Your task to perform on an android device: open a new tab in the chrome app Image 0: 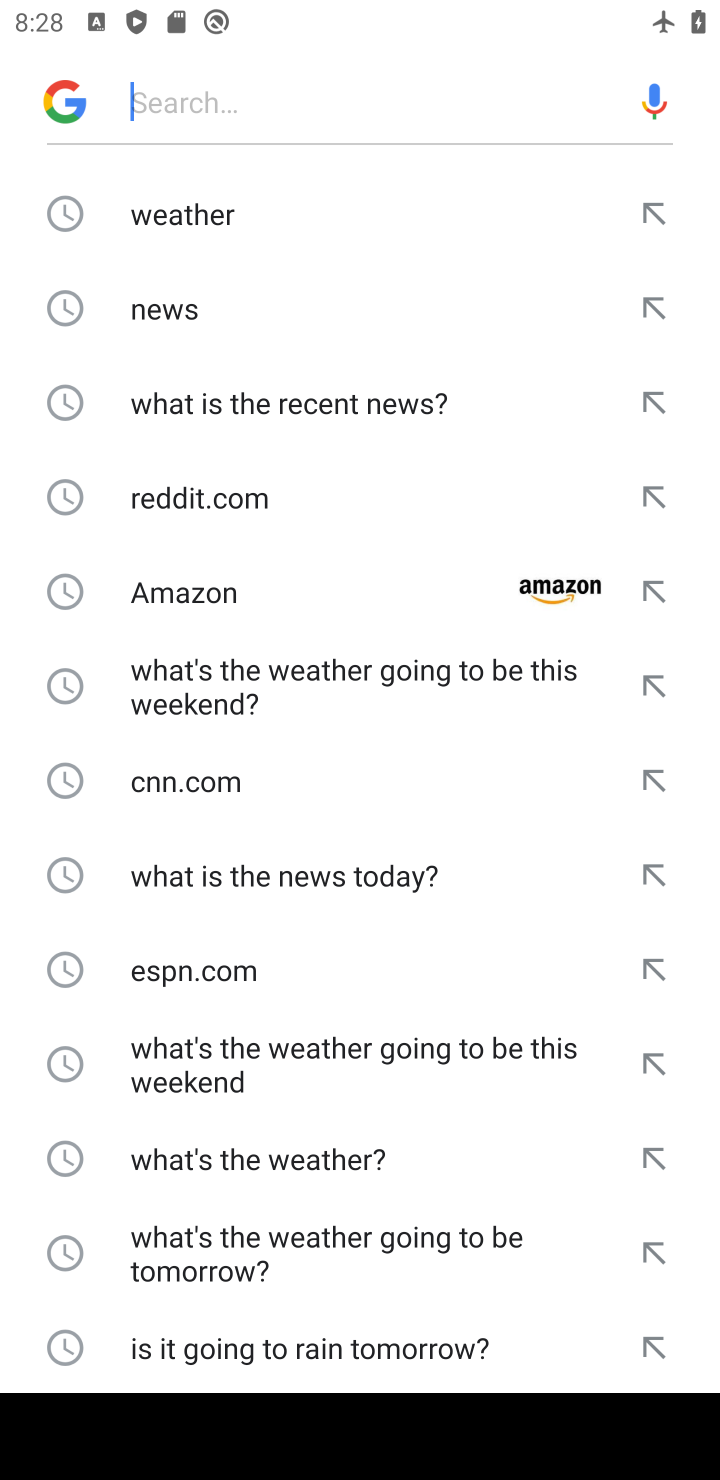
Step 0: press home button
Your task to perform on an android device: open a new tab in the chrome app Image 1: 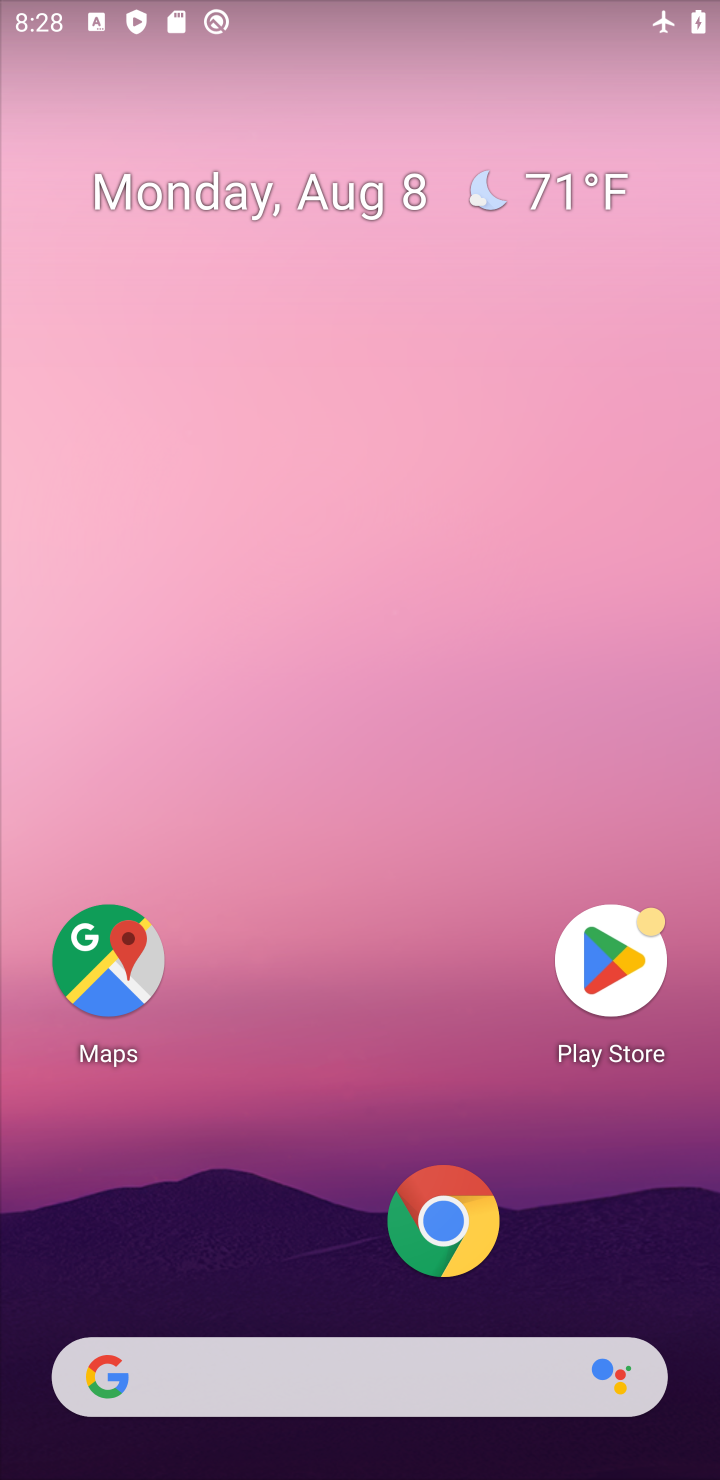
Step 1: click (461, 1237)
Your task to perform on an android device: open a new tab in the chrome app Image 2: 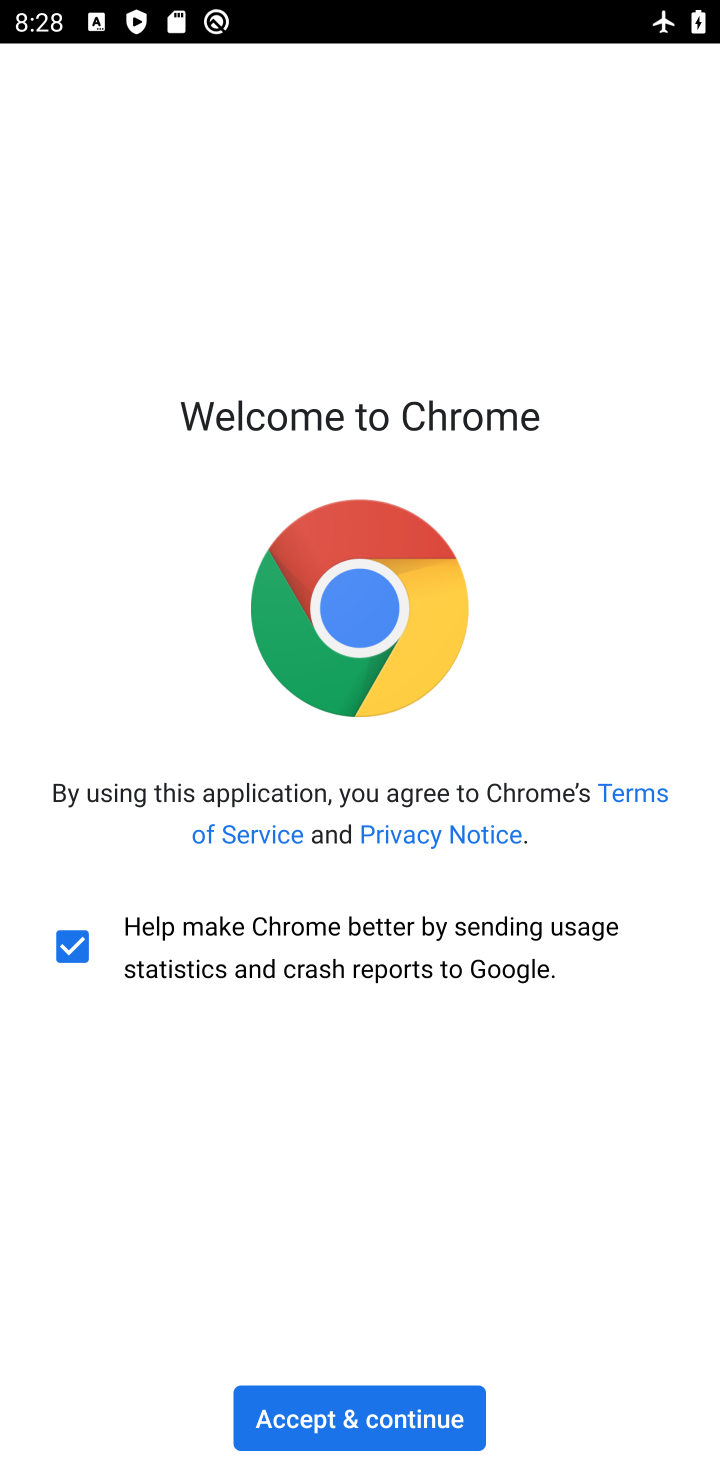
Step 2: click (391, 1403)
Your task to perform on an android device: open a new tab in the chrome app Image 3: 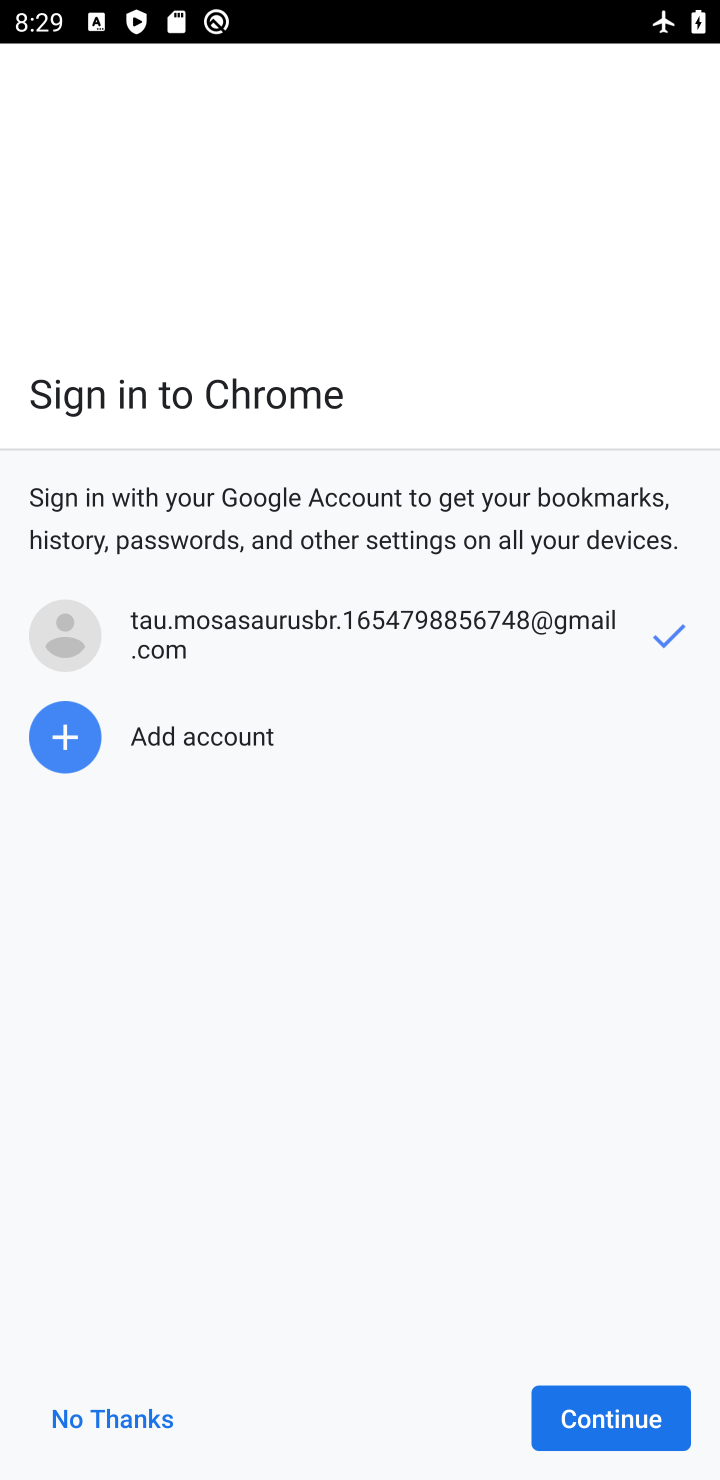
Step 3: click (602, 1427)
Your task to perform on an android device: open a new tab in the chrome app Image 4: 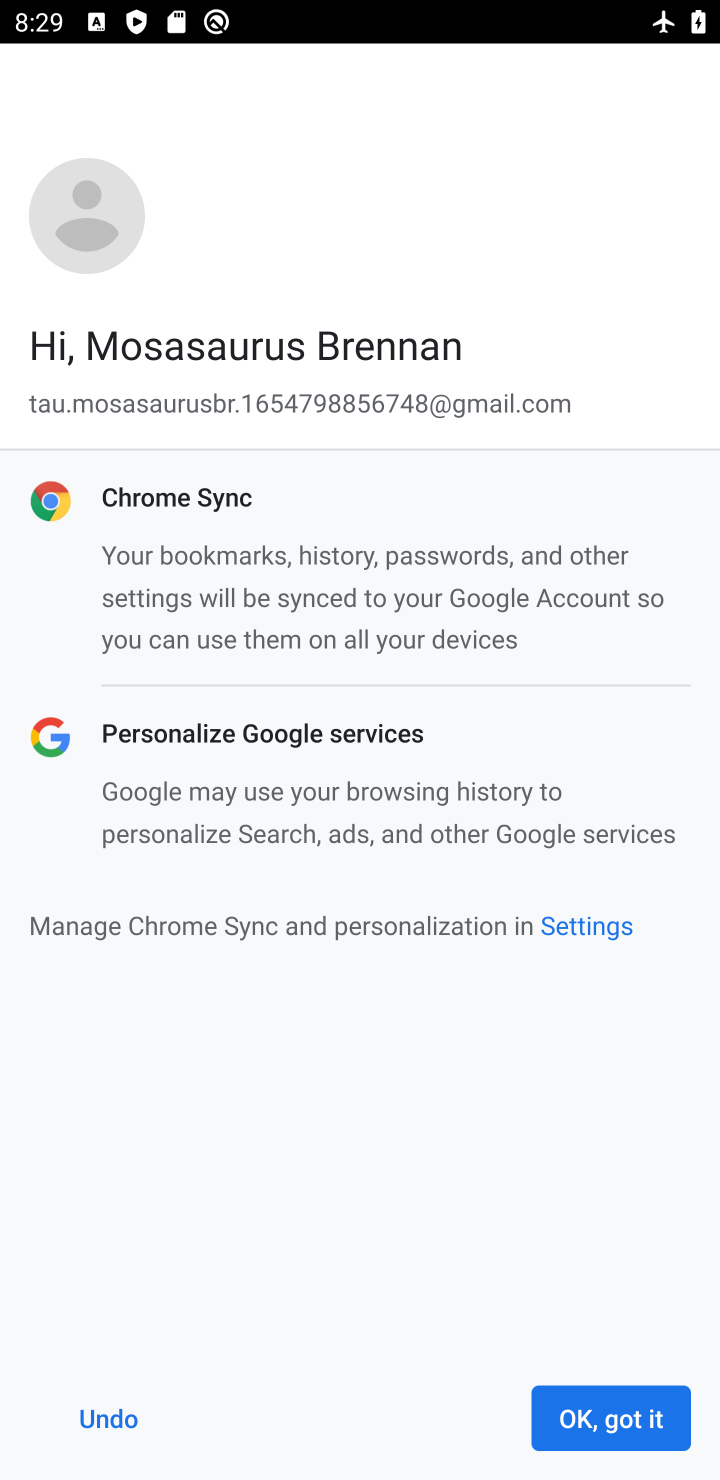
Step 4: click (602, 1427)
Your task to perform on an android device: open a new tab in the chrome app Image 5: 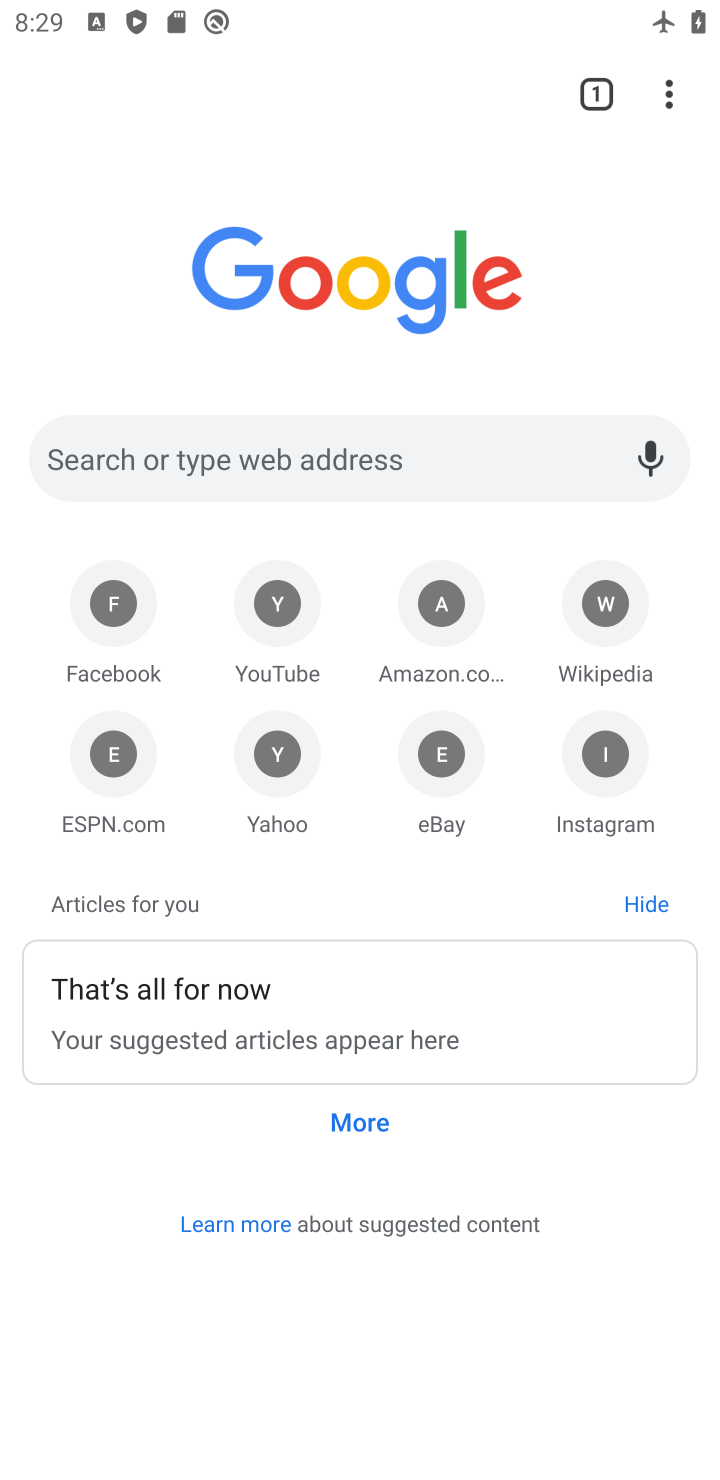
Step 5: task complete